Your task to perform on an android device: choose inbox layout in the gmail app Image 0: 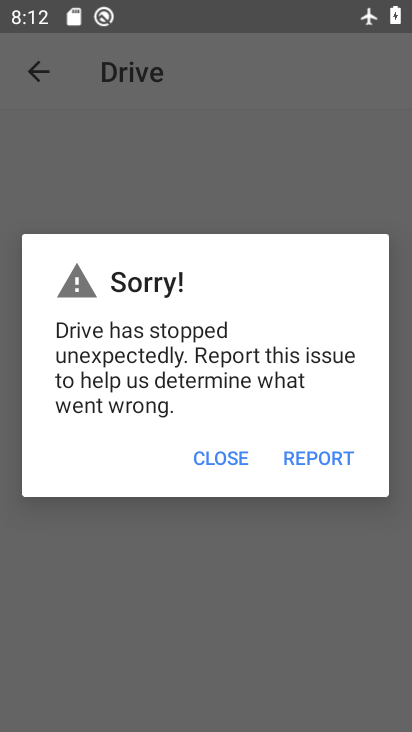
Step 0: press home button
Your task to perform on an android device: choose inbox layout in the gmail app Image 1: 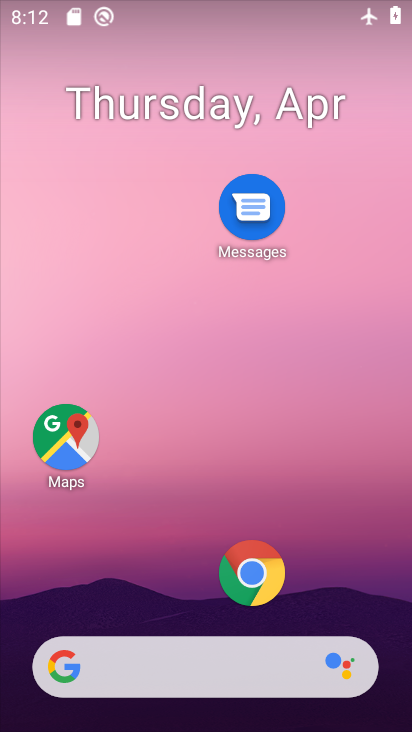
Step 1: drag from (194, 589) to (234, 170)
Your task to perform on an android device: choose inbox layout in the gmail app Image 2: 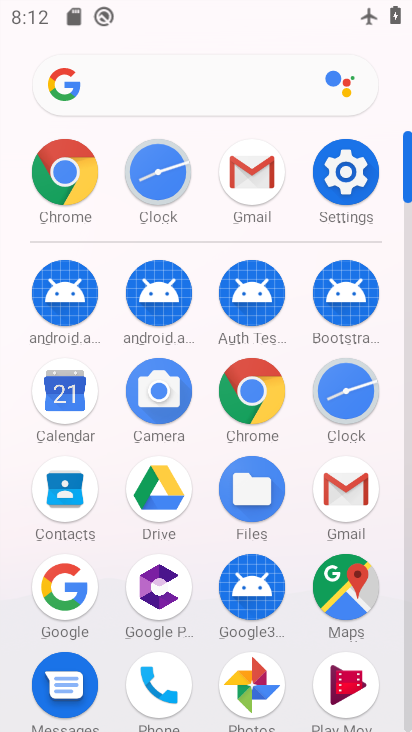
Step 2: click (249, 162)
Your task to perform on an android device: choose inbox layout in the gmail app Image 3: 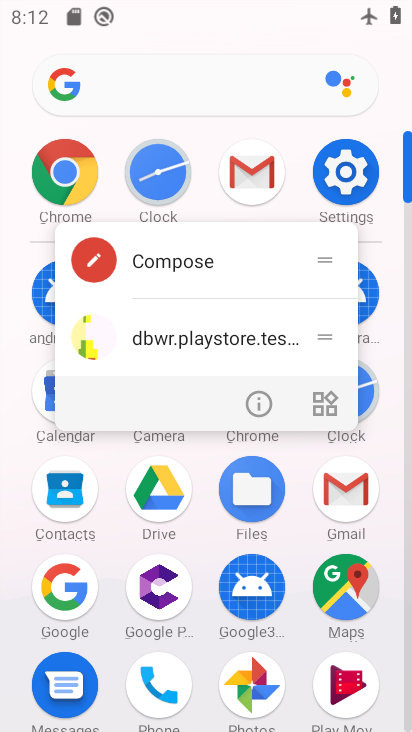
Step 3: click (253, 175)
Your task to perform on an android device: choose inbox layout in the gmail app Image 4: 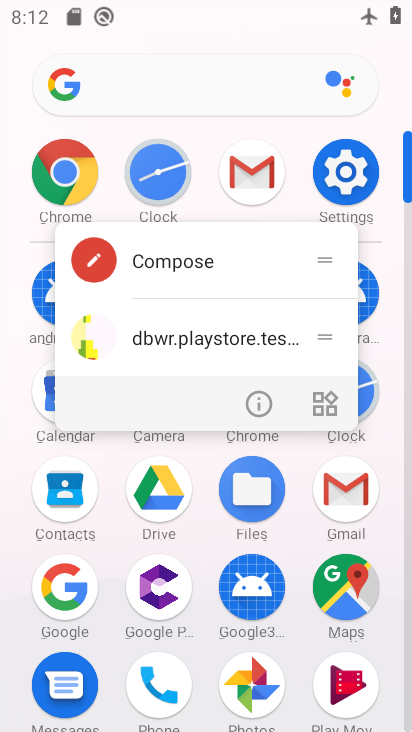
Step 4: click (350, 481)
Your task to perform on an android device: choose inbox layout in the gmail app Image 5: 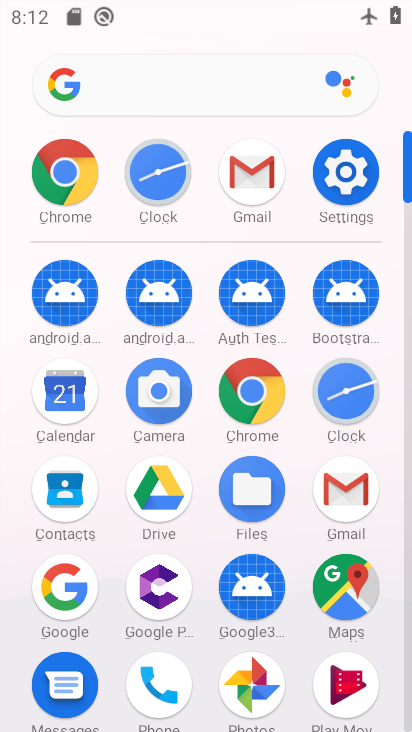
Step 5: click (347, 487)
Your task to perform on an android device: choose inbox layout in the gmail app Image 6: 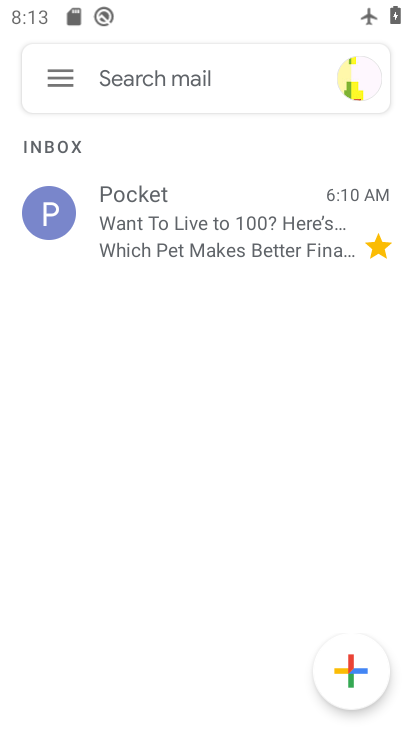
Step 6: click (55, 69)
Your task to perform on an android device: choose inbox layout in the gmail app Image 7: 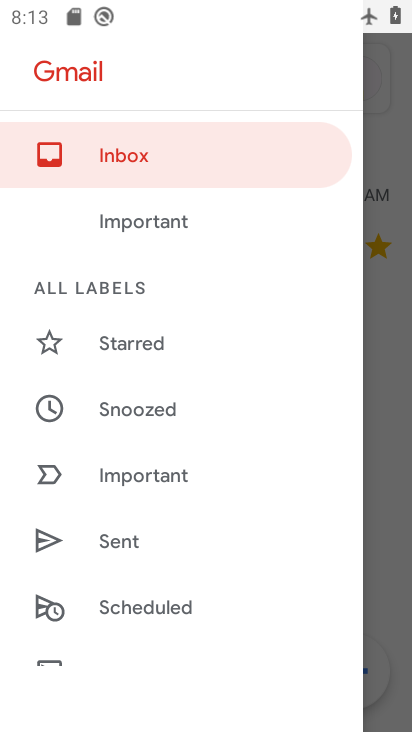
Step 7: drag from (116, 642) to (124, 7)
Your task to perform on an android device: choose inbox layout in the gmail app Image 8: 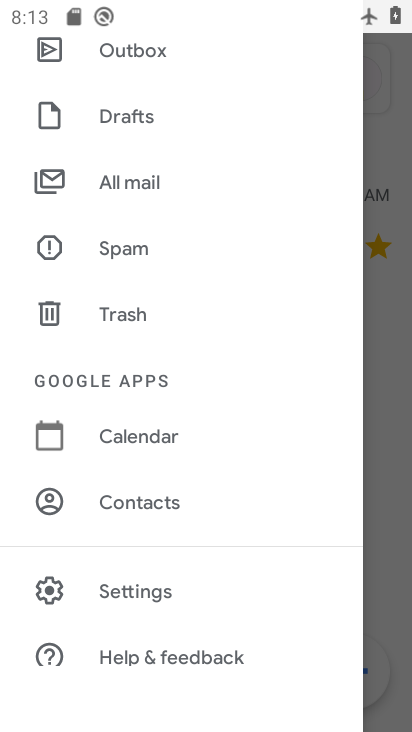
Step 8: click (114, 588)
Your task to perform on an android device: choose inbox layout in the gmail app Image 9: 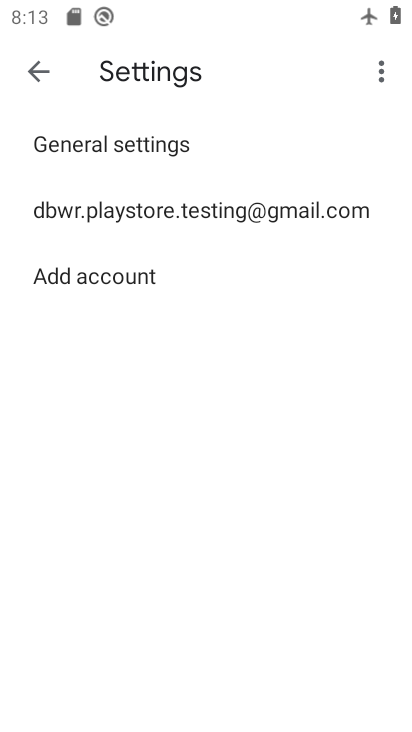
Step 9: click (186, 212)
Your task to perform on an android device: choose inbox layout in the gmail app Image 10: 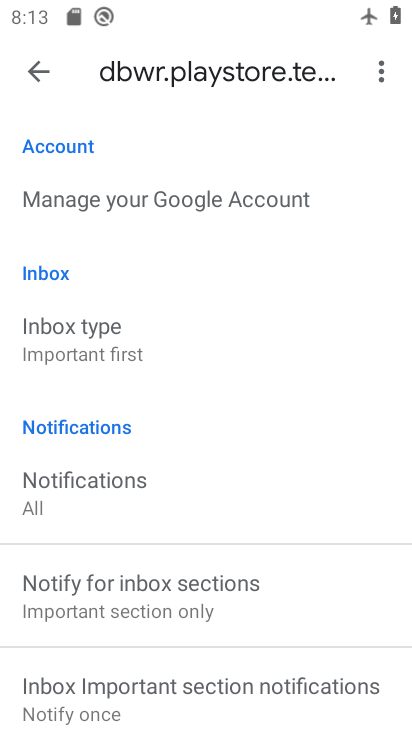
Step 10: click (169, 339)
Your task to perform on an android device: choose inbox layout in the gmail app Image 11: 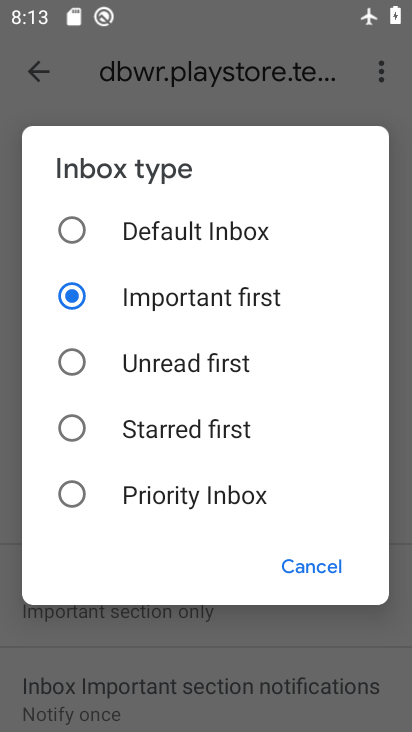
Step 11: click (66, 226)
Your task to perform on an android device: choose inbox layout in the gmail app Image 12: 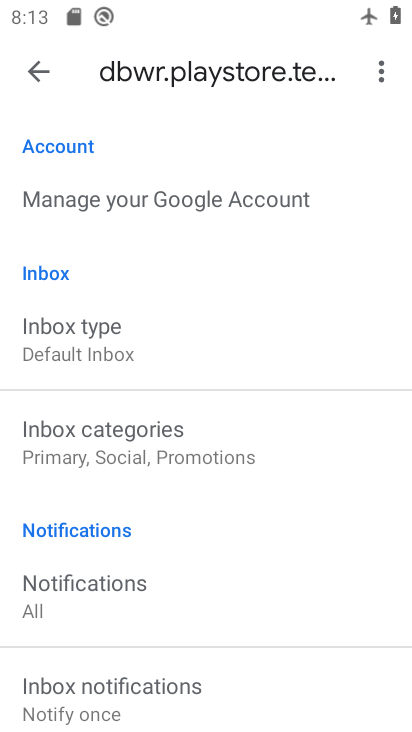
Step 12: task complete